Your task to perform on an android device: allow notifications from all sites in the chrome app Image 0: 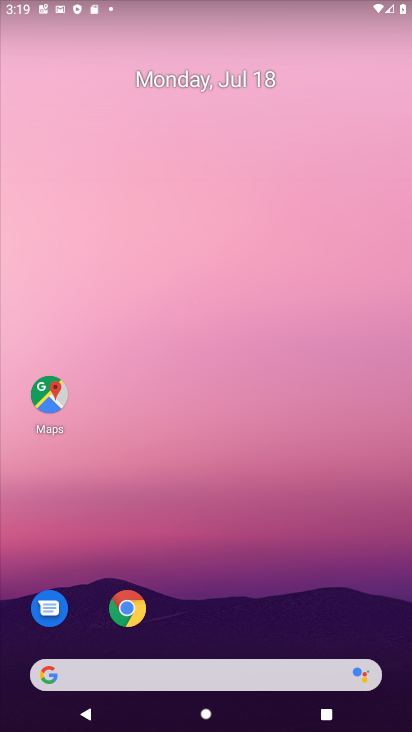
Step 0: drag from (247, 703) to (249, 234)
Your task to perform on an android device: allow notifications from all sites in the chrome app Image 1: 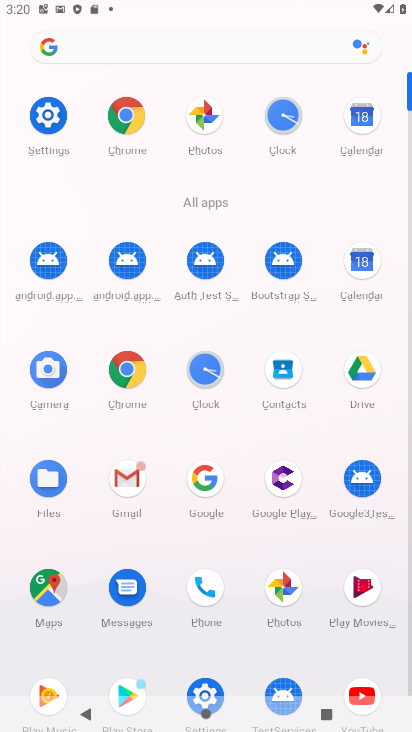
Step 1: click (123, 363)
Your task to perform on an android device: allow notifications from all sites in the chrome app Image 2: 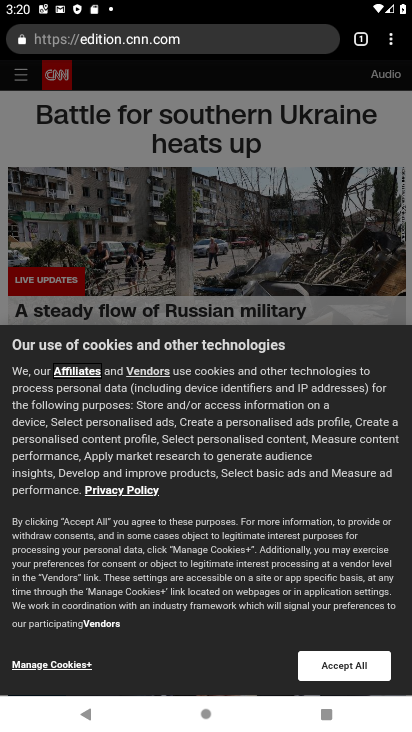
Step 2: click (395, 47)
Your task to perform on an android device: allow notifications from all sites in the chrome app Image 3: 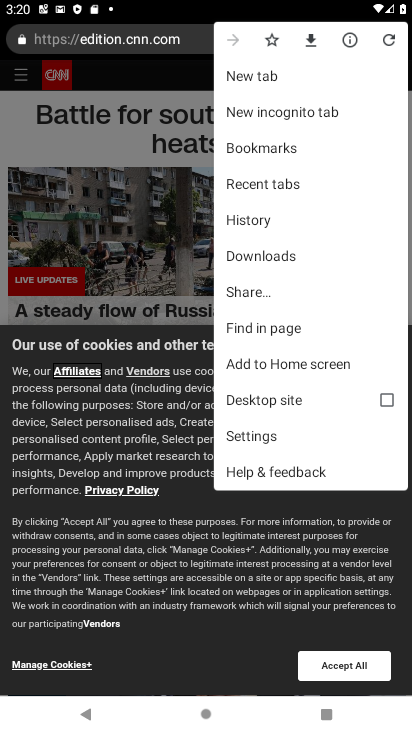
Step 3: click (243, 438)
Your task to perform on an android device: allow notifications from all sites in the chrome app Image 4: 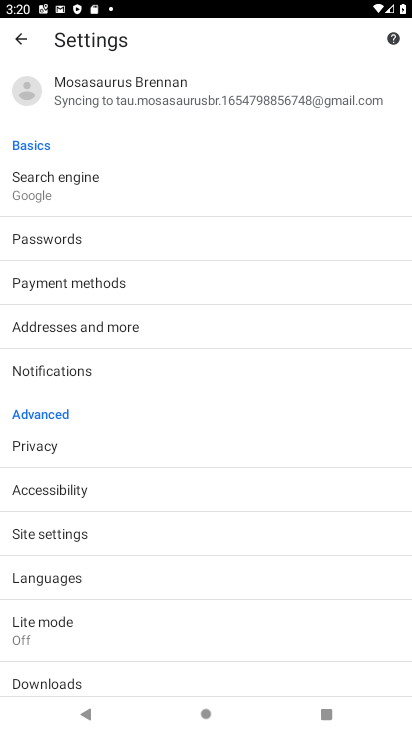
Step 4: click (77, 378)
Your task to perform on an android device: allow notifications from all sites in the chrome app Image 5: 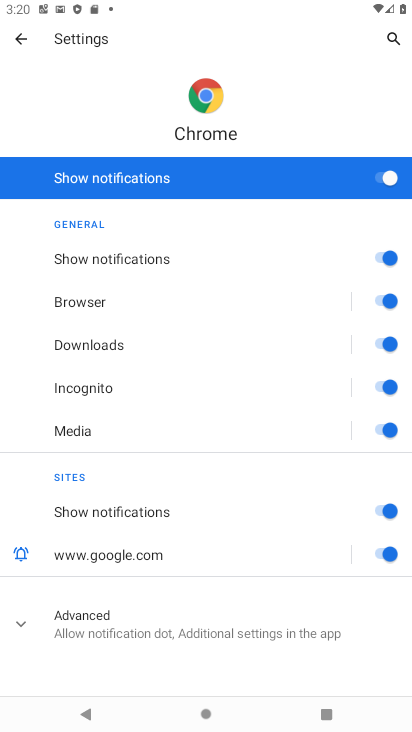
Step 5: drag from (154, 621) to (168, 441)
Your task to perform on an android device: allow notifications from all sites in the chrome app Image 6: 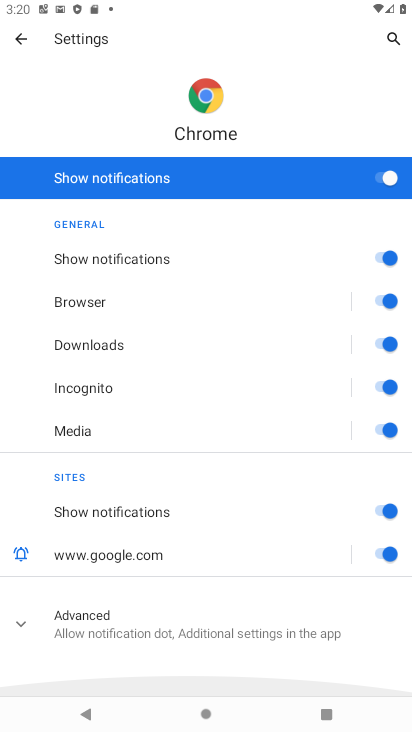
Step 6: click (110, 608)
Your task to perform on an android device: allow notifications from all sites in the chrome app Image 7: 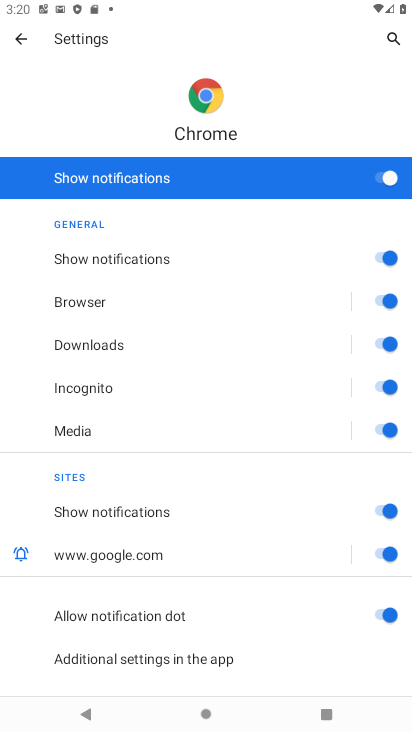
Step 7: task complete